Your task to perform on an android device: change the upload size in google photos Image 0: 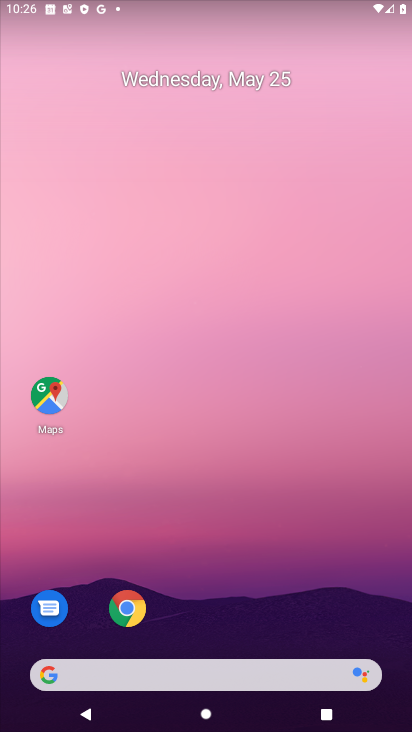
Step 0: drag from (274, 629) to (257, 0)
Your task to perform on an android device: change the upload size in google photos Image 1: 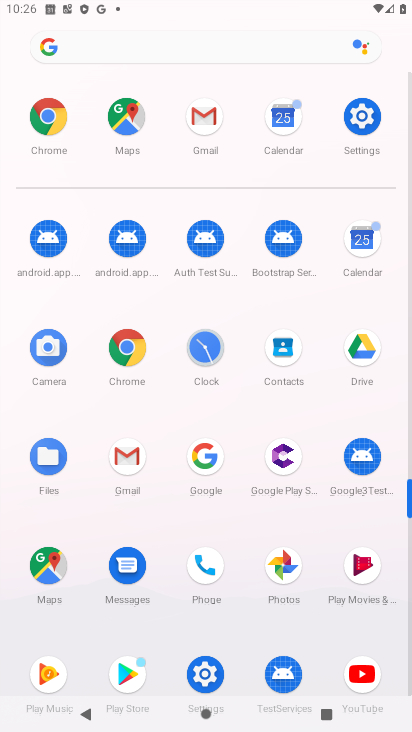
Step 1: click (278, 558)
Your task to perform on an android device: change the upload size in google photos Image 2: 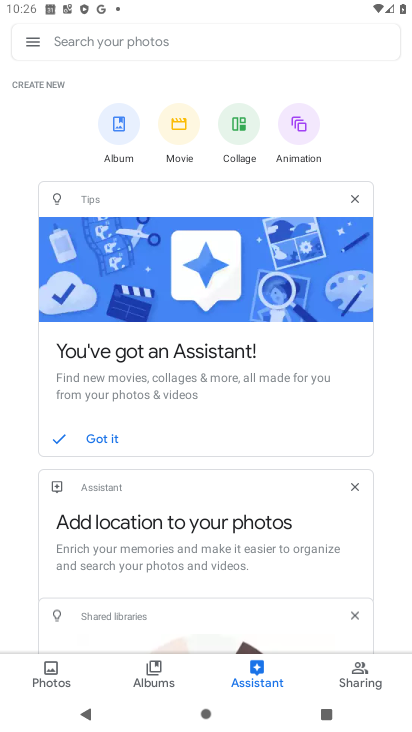
Step 2: click (26, 40)
Your task to perform on an android device: change the upload size in google photos Image 3: 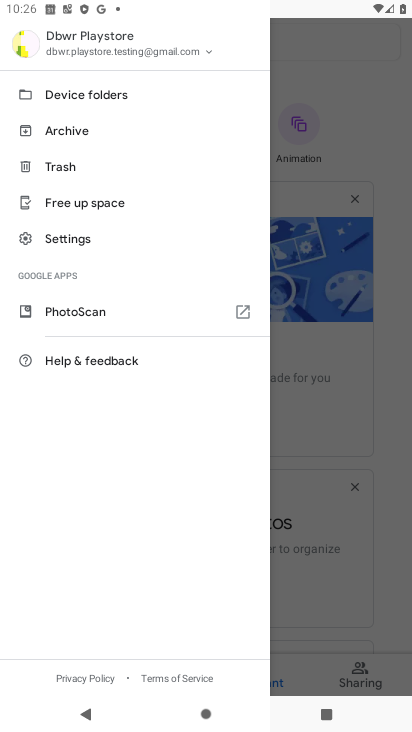
Step 3: click (66, 238)
Your task to perform on an android device: change the upload size in google photos Image 4: 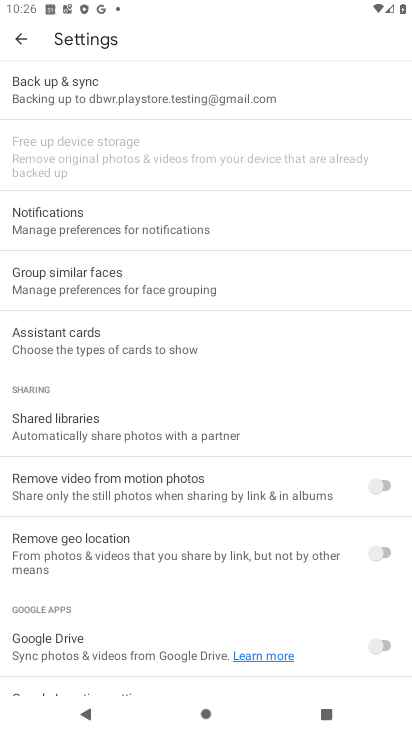
Step 4: click (51, 101)
Your task to perform on an android device: change the upload size in google photos Image 5: 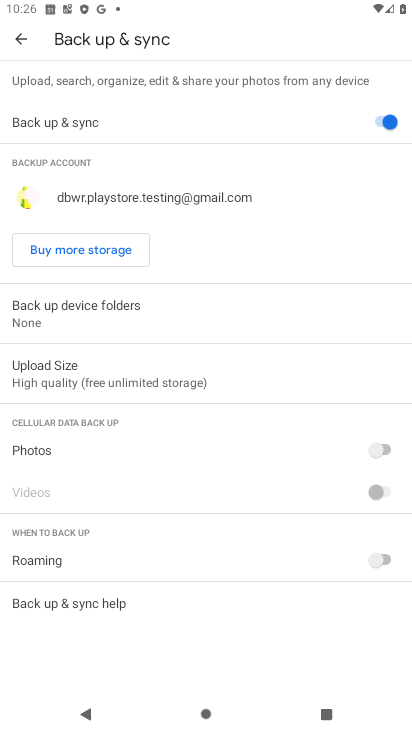
Step 5: click (62, 374)
Your task to perform on an android device: change the upload size in google photos Image 6: 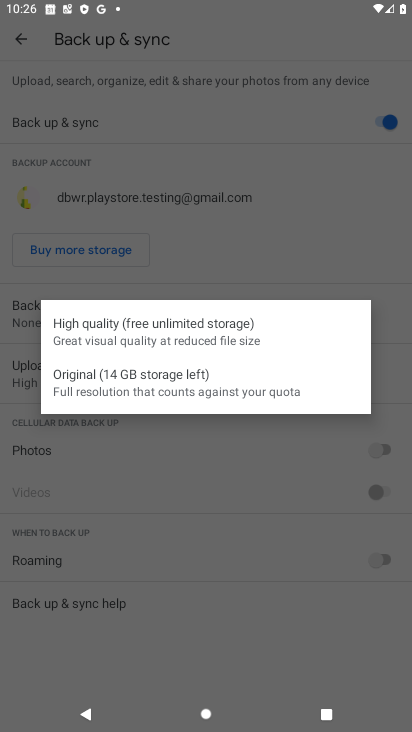
Step 6: click (62, 374)
Your task to perform on an android device: change the upload size in google photos Image 7: 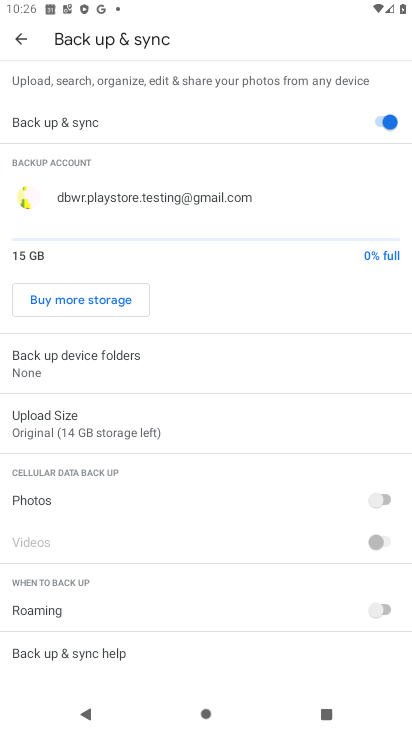
Step 7: task complete